Your task to perform on an android device: Open notification settings Image 0: 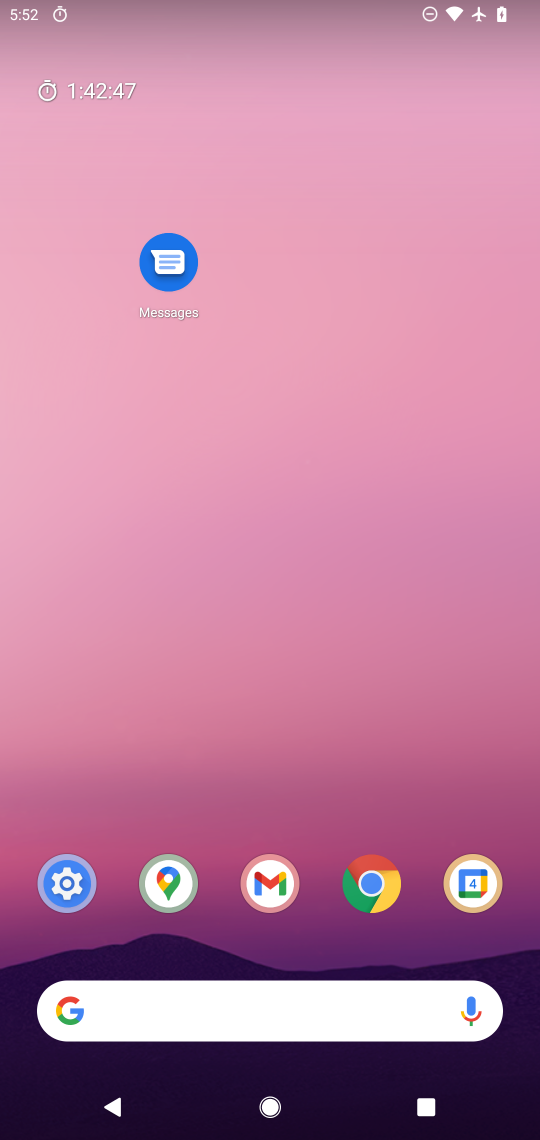
Step 0: drag from (314, 949) to (314, 26)
Your task to perform on an android device: Open notification settings Image 1: 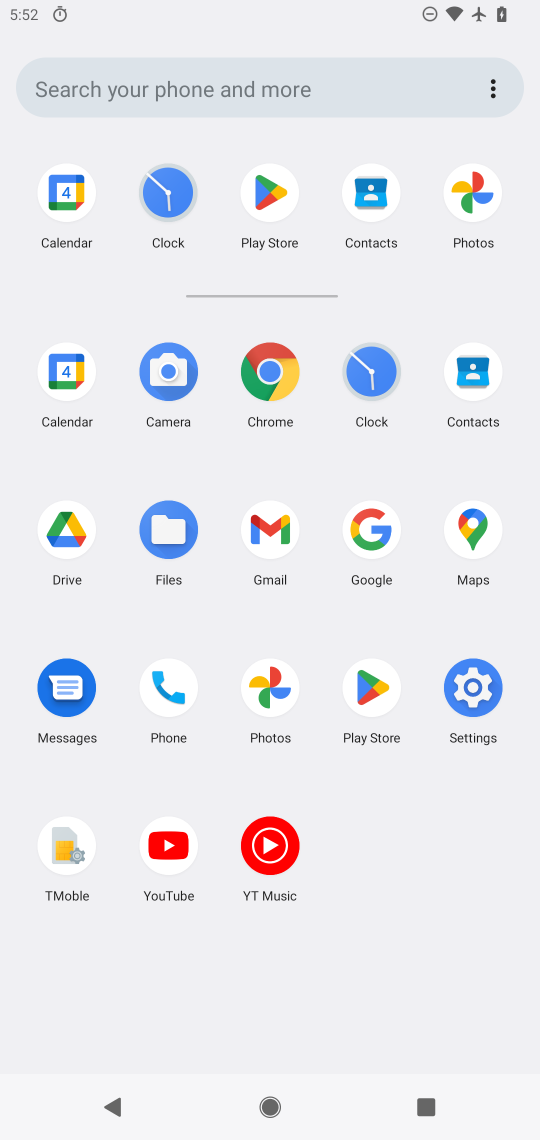
Step 1: click (468, 693)
Your task to perform on an android device: Open notification settings Image 2: 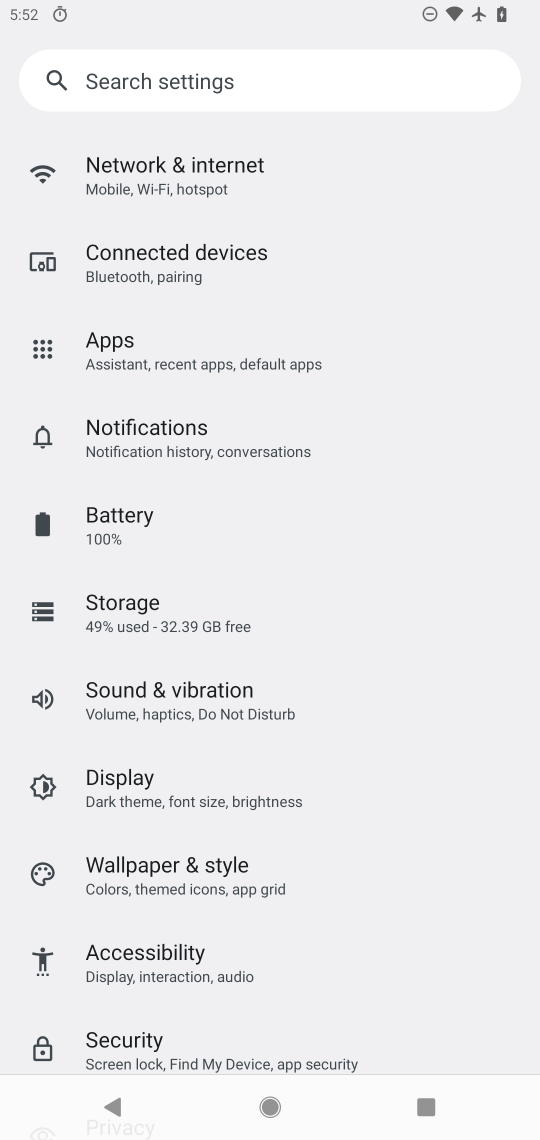
Step 2: drag from (162, 193) to (160, 746)
Your task to perform on an android device: Open notification settings Image 3: 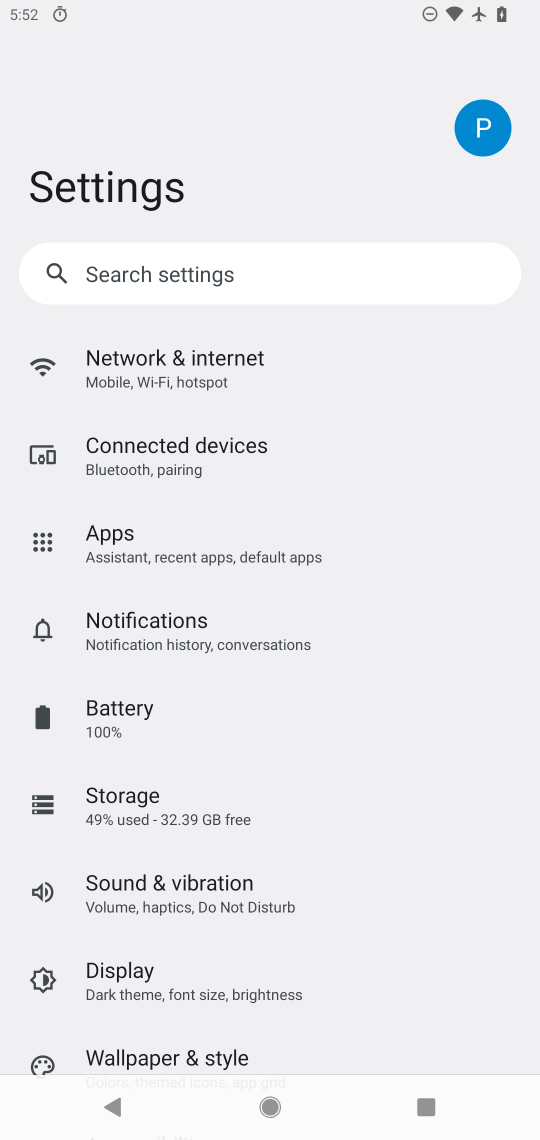
Step 3: click (145, 634)
Your task to perform on an android device: Open notification settings Image 4: 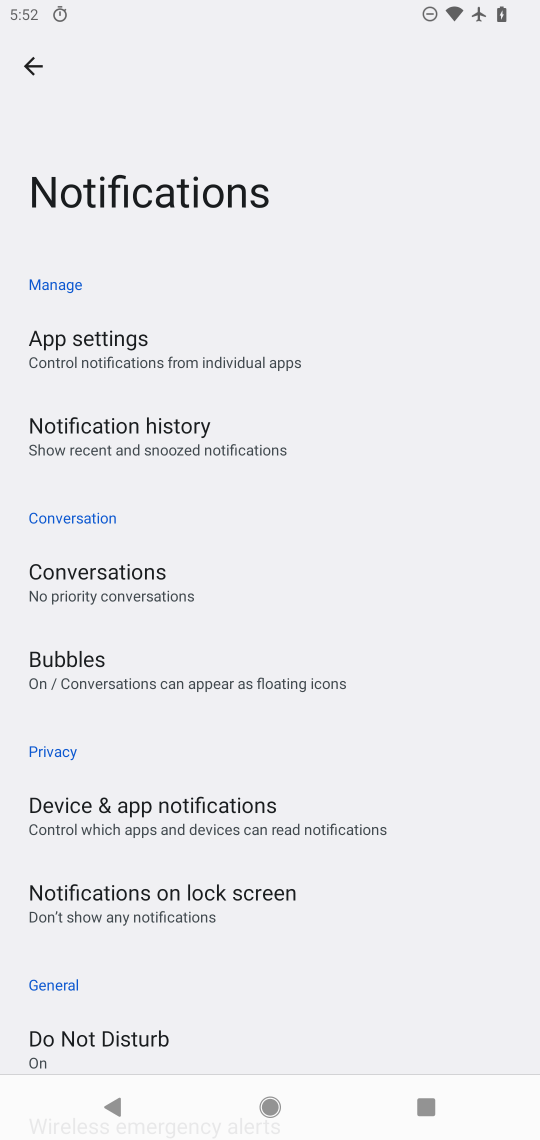
Step 4: task complete